Your task to perform on an android device: Show the shopping cart on amazon.com. Image 0: 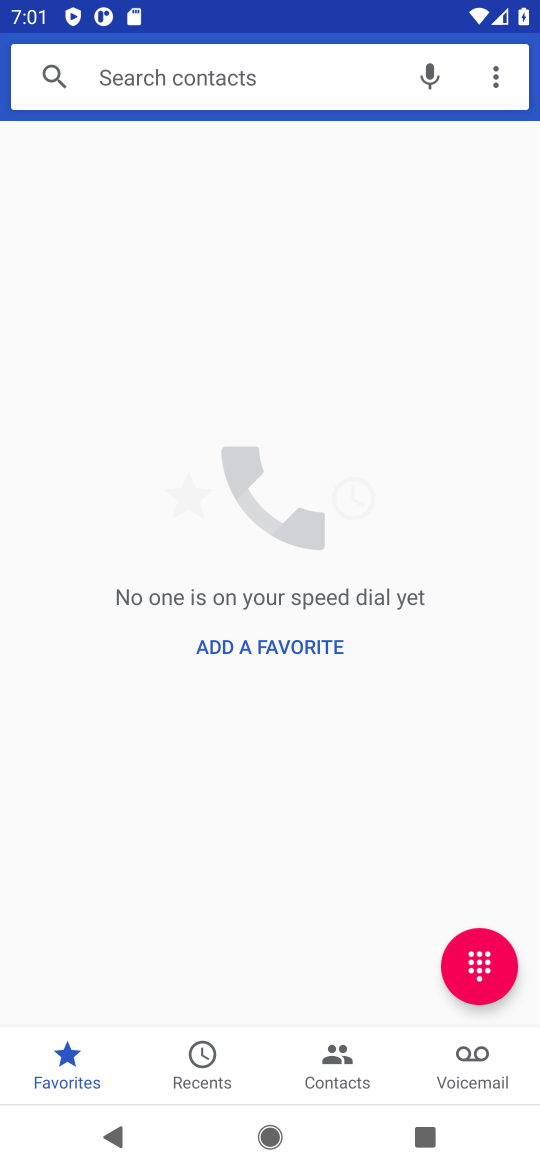
Step 0: press home button
Your task to perform on an android device: Show the shopping cart on amazon.com. Image 1: 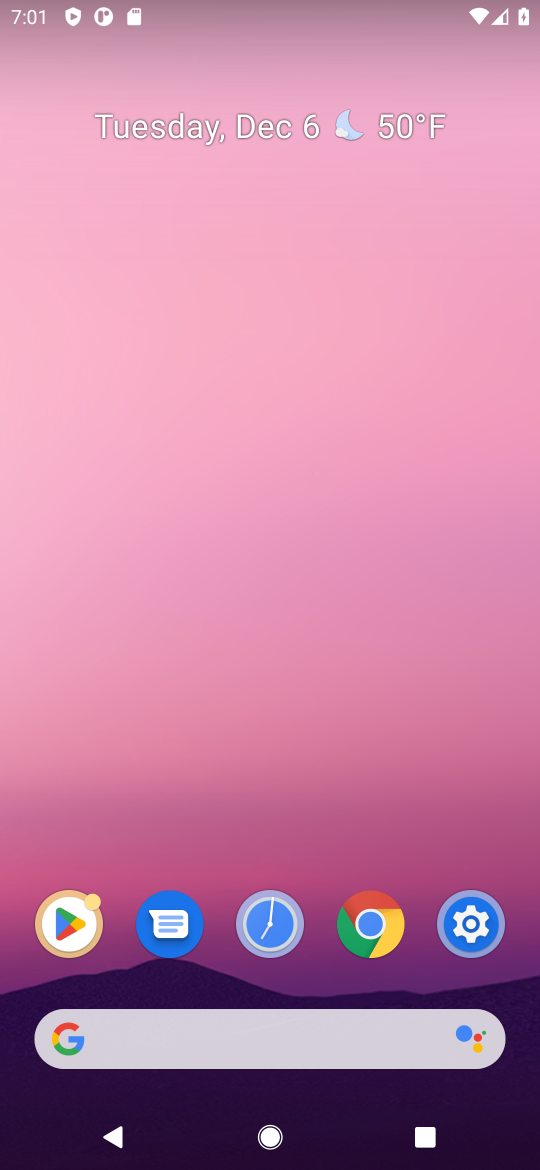
Step 1: click (367, 1022)
Your task to perform on an android device: Show the shopping cart on amazon.com. Image 2: 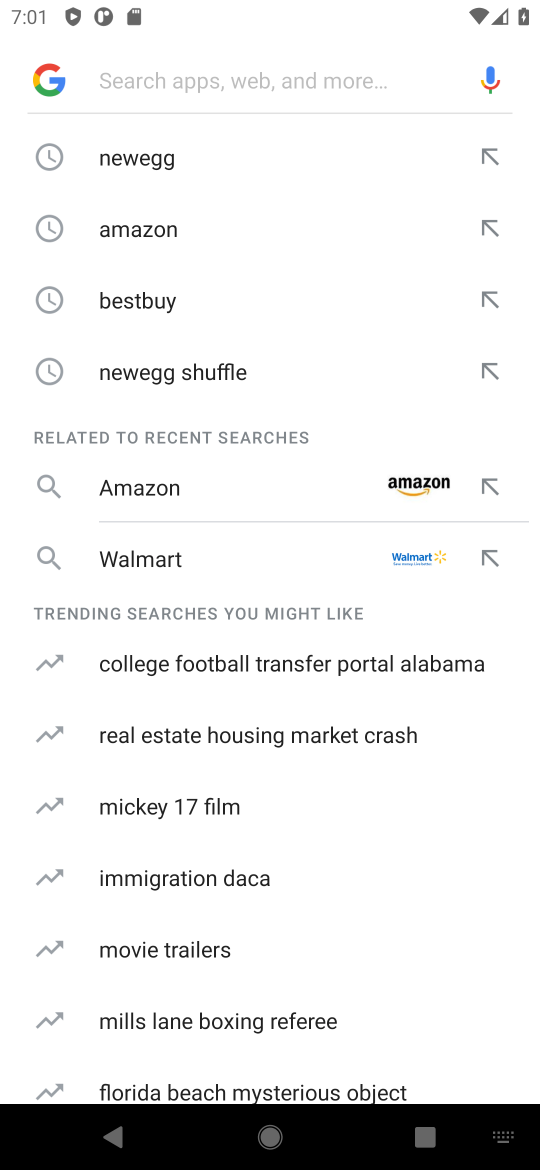
Step 2: type "amazon"
Your task to perform on an android device: Show the shopping cart on amazon.com. Image 3: 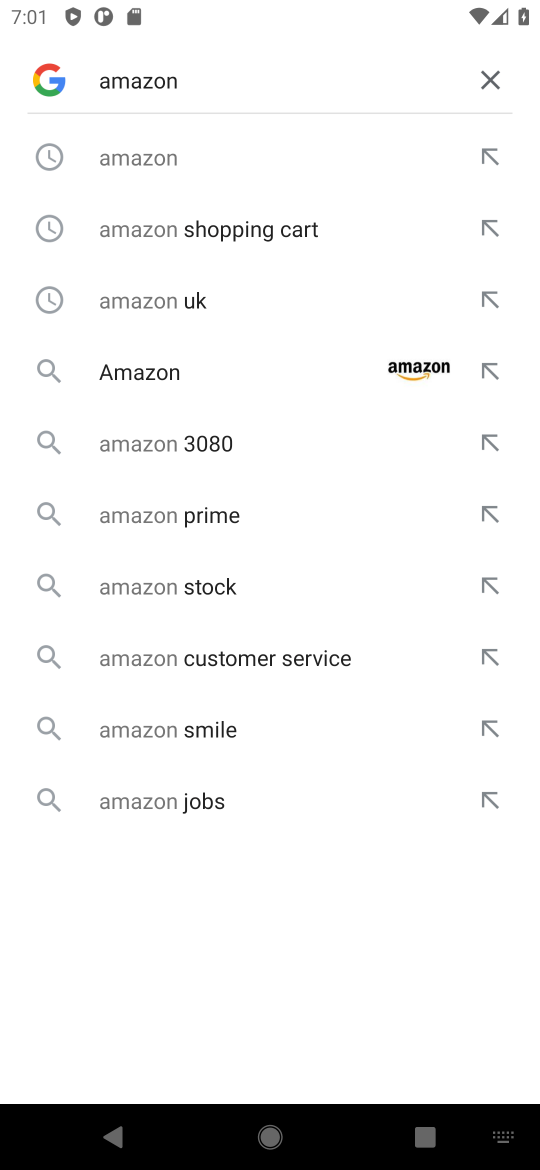
Step 3: click (151, 141)
Your task to perform on an android device: Show the shopping cart on amazon.com. Image 4: 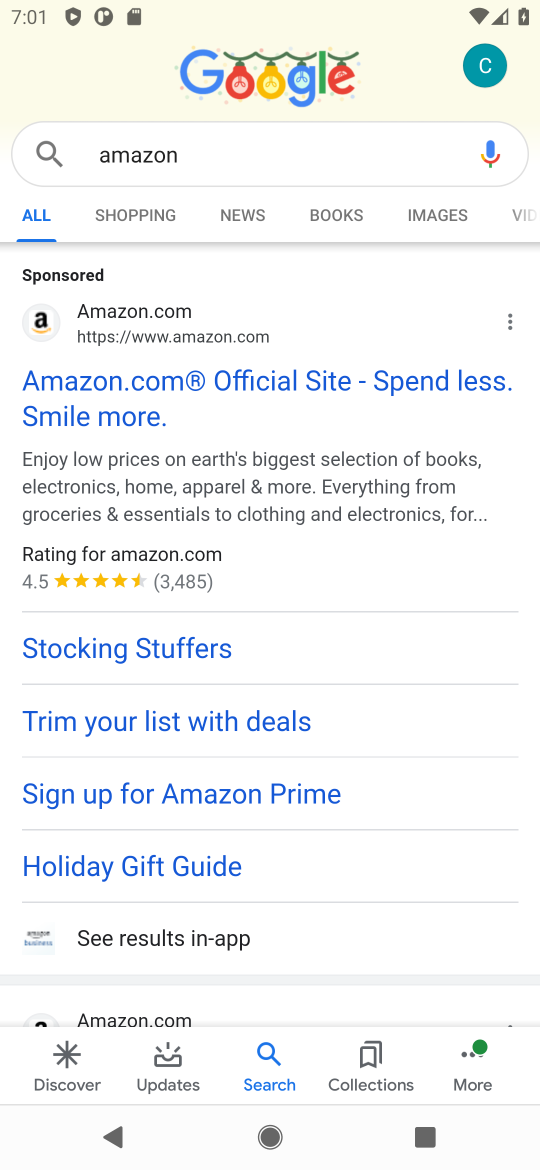
Step 4: click (188, 396)
Your task to perform on an android device: Show the shopping cart on amazon.com. Image 5: 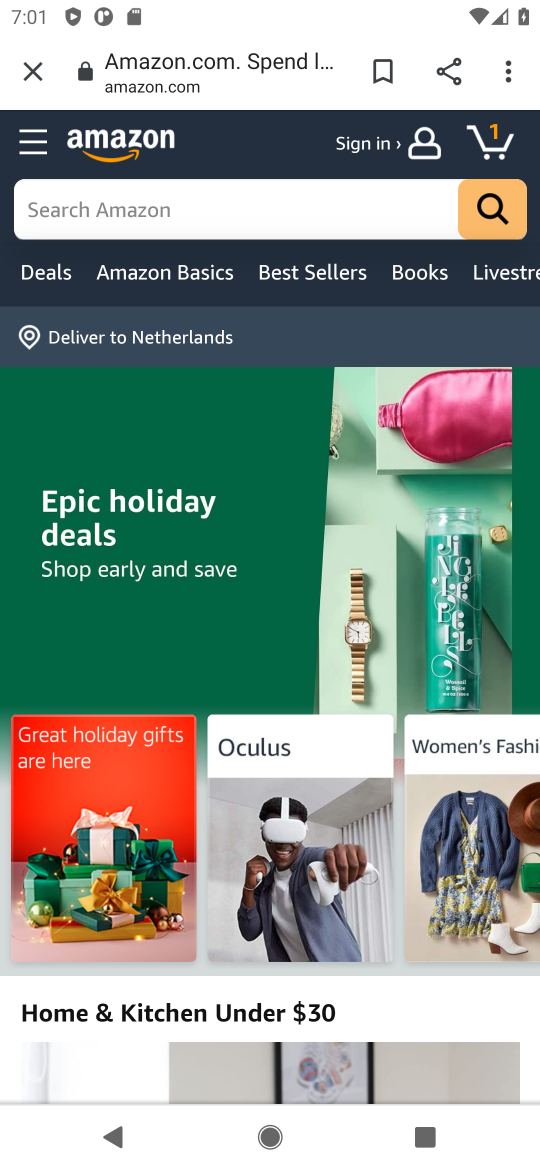
Step 5: click (140, 210)
Your task to perform on an android device: Show the shopping cart on amazon.com. Image 6: 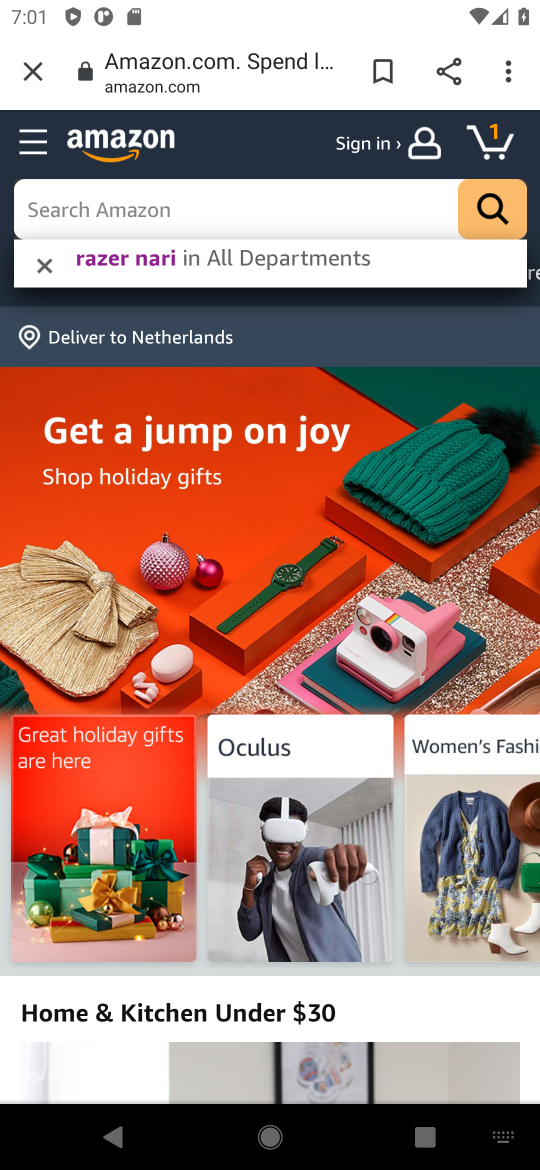
Step 6: click (498, 126)
Your task to perform on an android device: Show the shopping cart on amazon.com. Image 7: 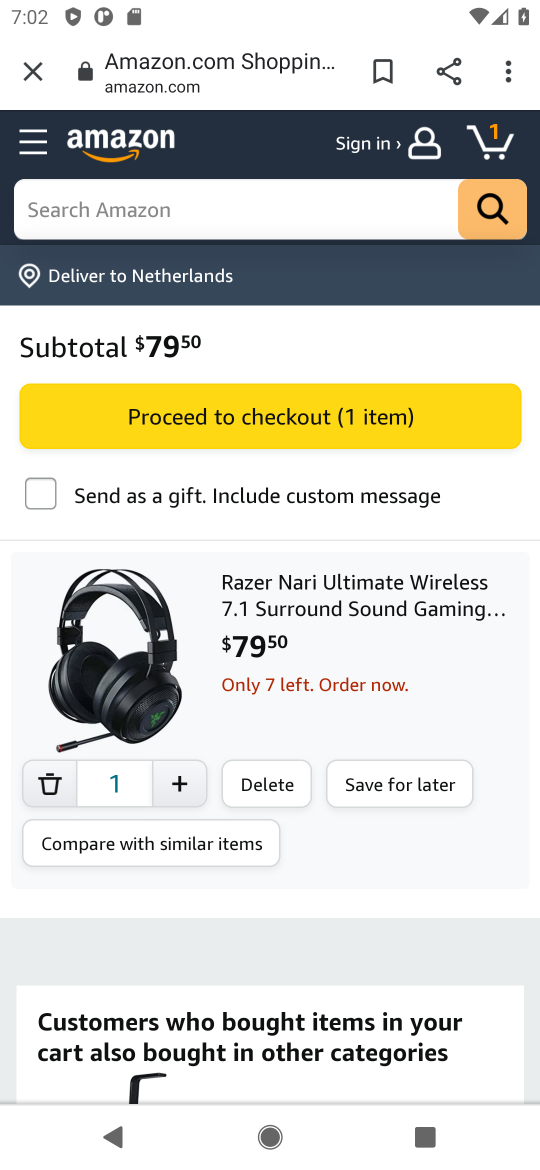
Step 7: task complete